Your task to perform on an android device: turn on javascript in the chrome app Image 0: 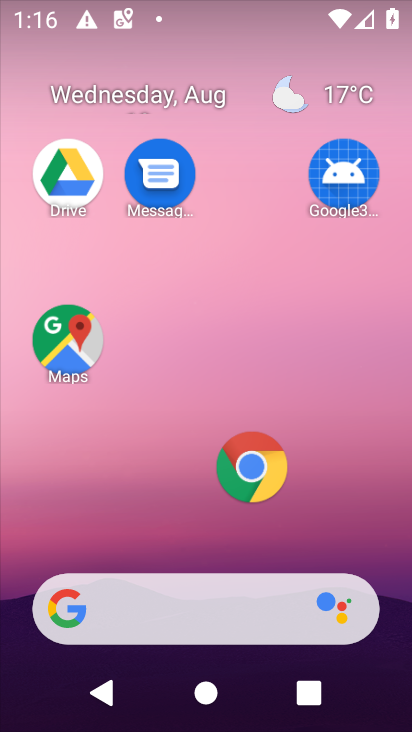
Step 0: click (269, 467)
Your task to perform on an android device: turn on javascript in the chrome app Image 1: 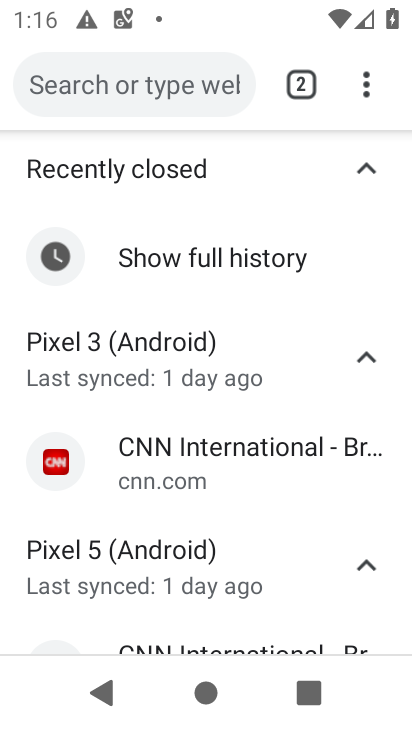
Step 1: click (389, 73)
Your task to perform on an android device: turn on javascript in the chrome app Image 2: 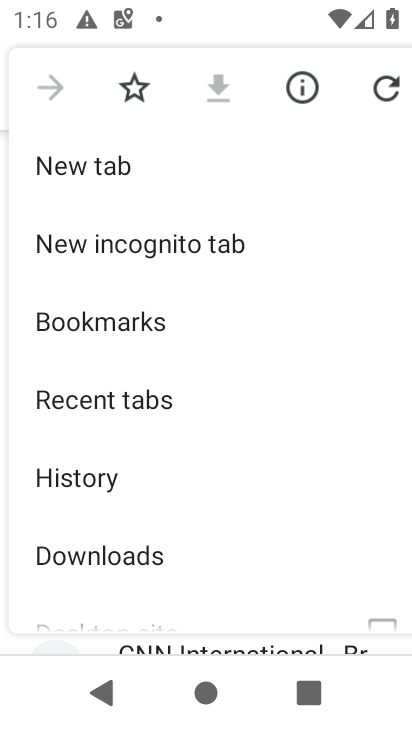
Step 2: drag from (152, 590) to (347, 127)
Your task to perform on an android device: turn on javascript in the chrome app Image 3: 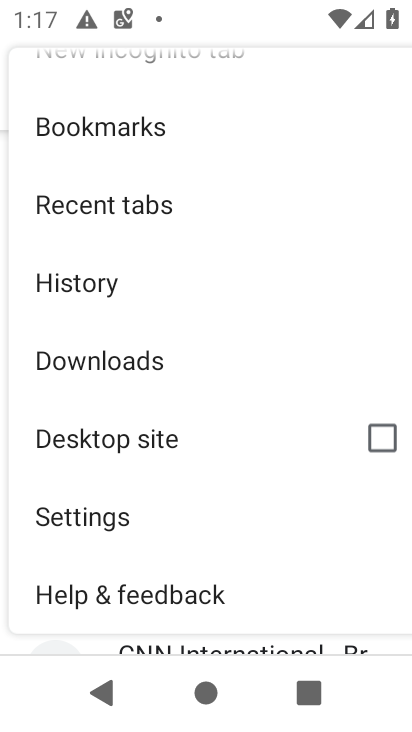
Step 3: click (150, 515)
Your task to perform on an android device: turn on javascript in the chrome app Image 4: 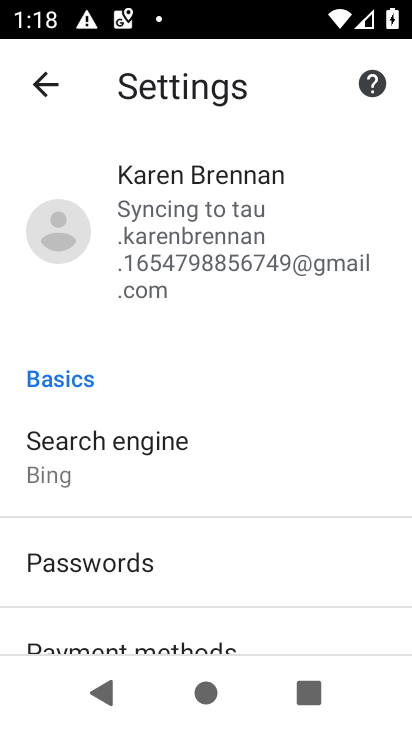
Step 4: drag from (237, 564) to (231, 294)
Your task to perform on an android device: turn on javascript in the chrome app Image 5: 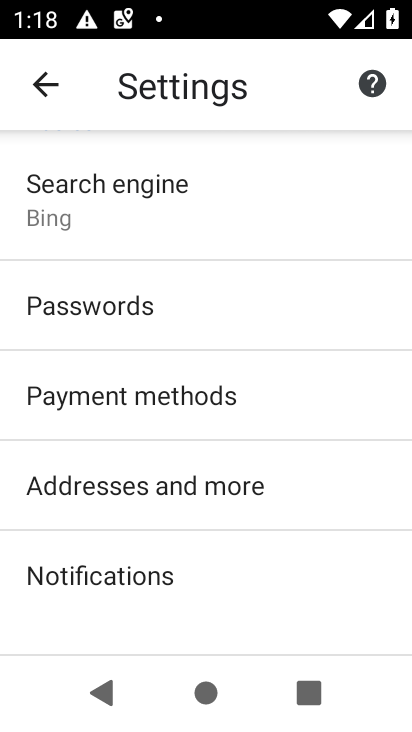
Step 5: drag from (197, 631) to (265, 54)
Your task to perform on an android device: turn on javascript in the chrome app Image 6: 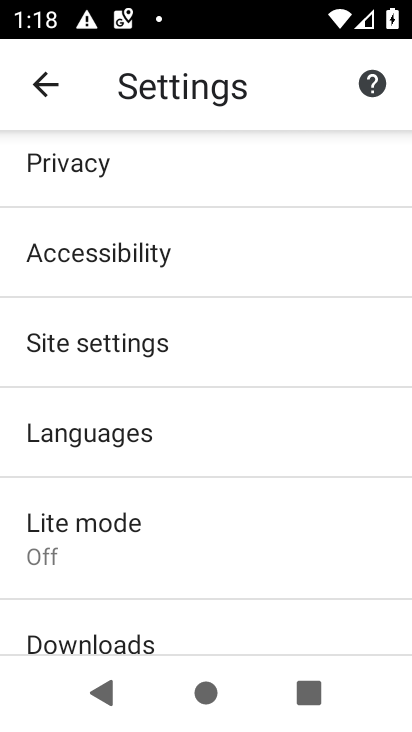
Step 6: drag from (188, 634) to (250, 148)
Your task to perform on an android device: turn on javascript in the chrome app Image 7: 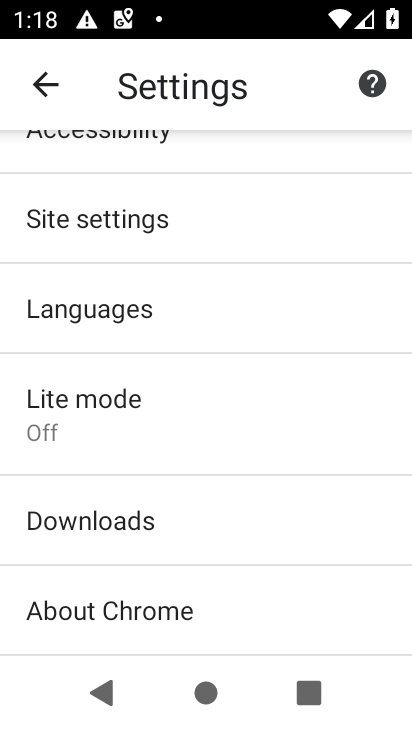
Step 7: click (130, 228)
Your task to perform on an android device: turn on javascript in the chrome app Image 8: 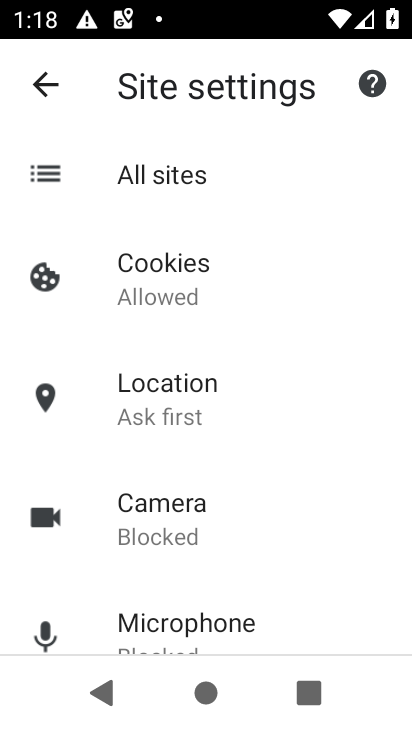
Step 8: drag from (103, 601) to (155, 235)
Your task to perform on an android device: turn on javascript in the chrome app Image 9: 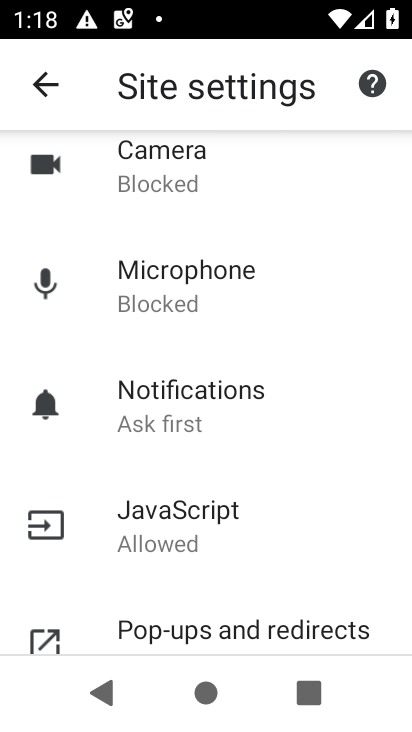
Step 9: click (174, 521)
Your task to perform on an android device: turn on javascript in the chrome app Image 10: 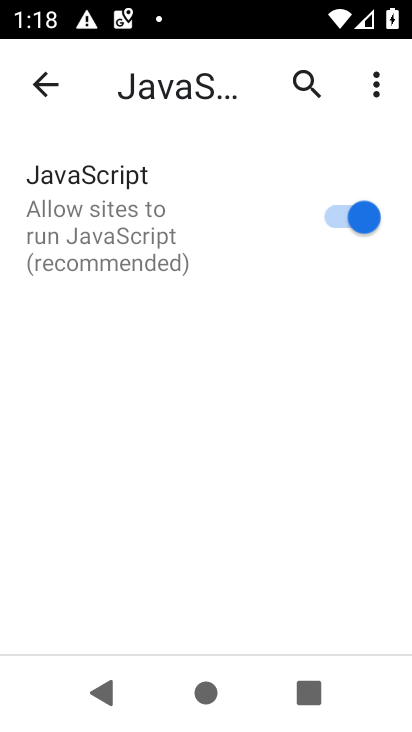
Step 10: task complete